Your task to perform on an android device: Open accessibility settings Image 0: 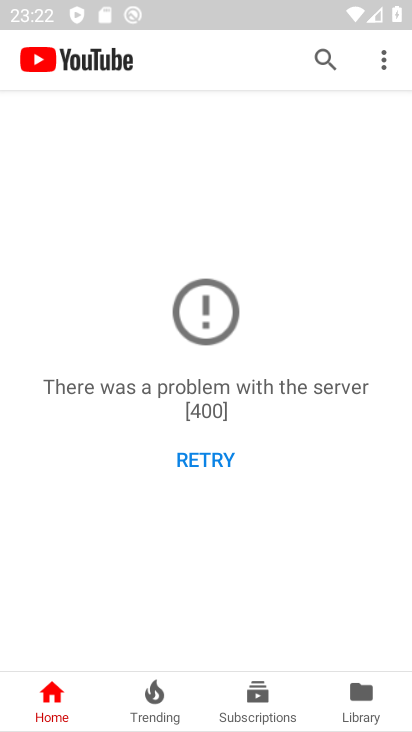
Step 0: press home button
Your task to perform on an android device: Open accessibility settings Image 1: 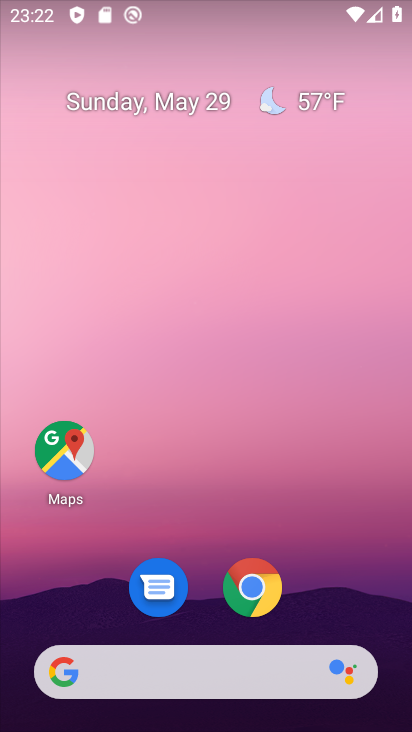
Step 1: drag from (362, 581) to (315, 169)
Your task to perform on an android device: Open accessibility settings Image 2: 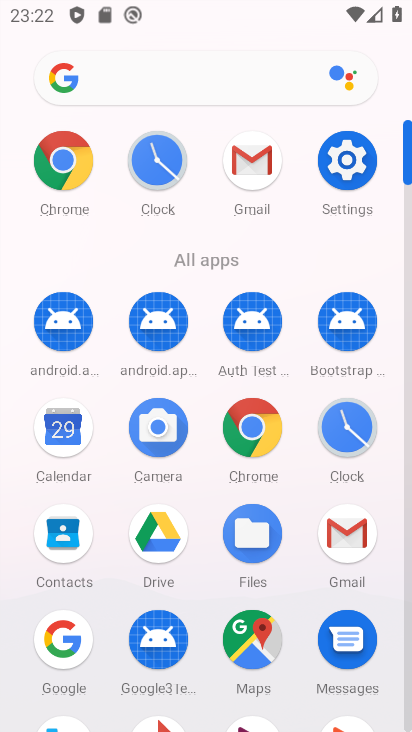
Step 2: click (338, 157)
Your task to perform on an android device: Open accessibility settings Image 3: 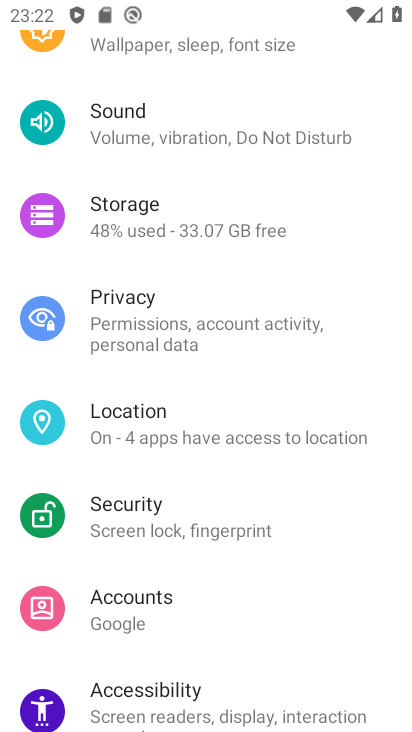
Step 3: click (234, 698)
Your task to perform on an android device: Open accessibility settings Image 4: 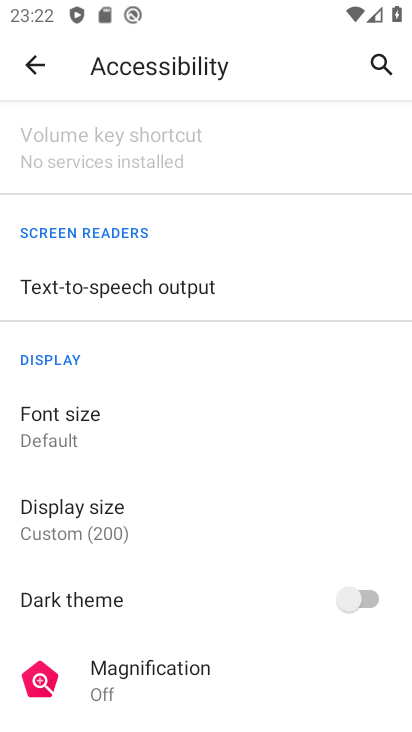
Step 4: task complete